Your task to perform on an android device: turn notification dots off Image 0: 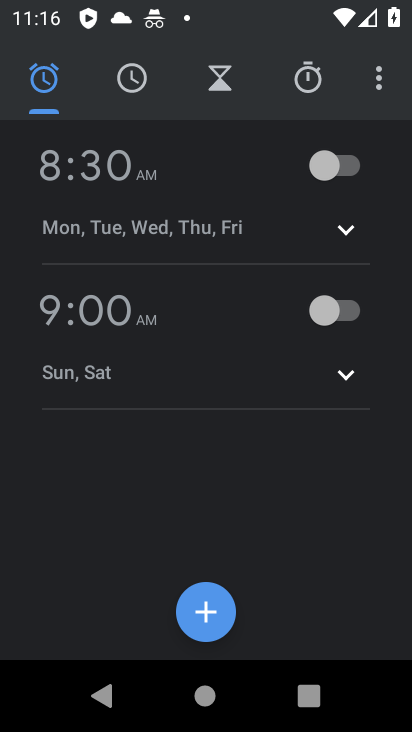
Step 0: press home button
Your task to perform on an android device: turn notification dots off Image 1: 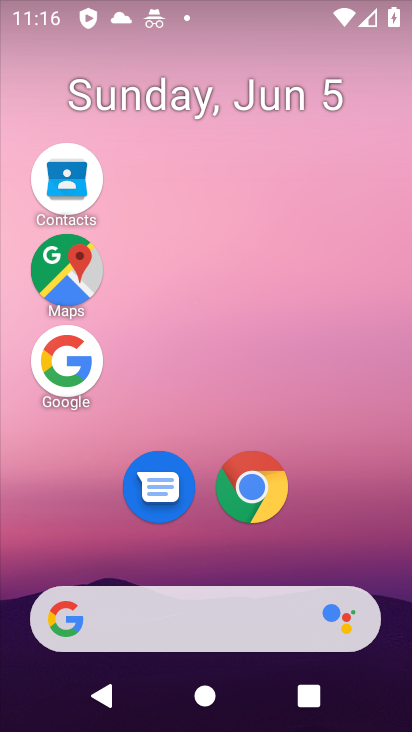
Step 1: drag from (224, 613) to (225, 149)
Your task to perform on an android device: turn notification dots off Image 2: 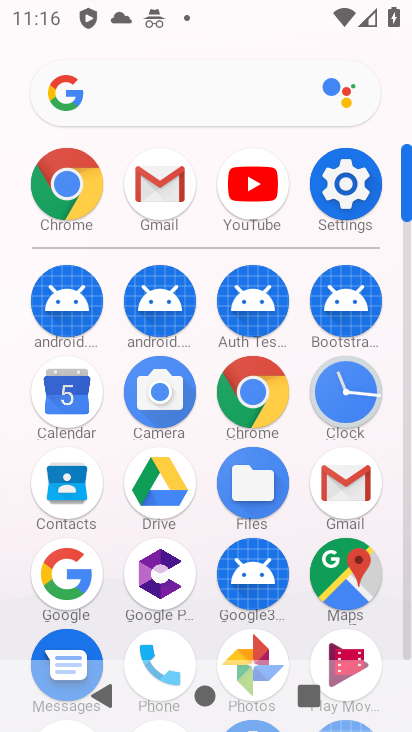
Step 2: click (346, 200)
Your task to perform on an android device: turn notification dots off Image 3: 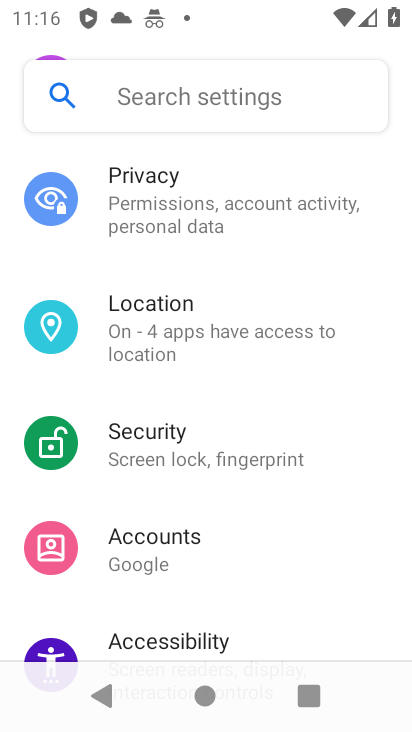
Step 3: drag from (188, 307) to (147, 716)
Your task to perform on an android device: turn notification dots off Image 4: 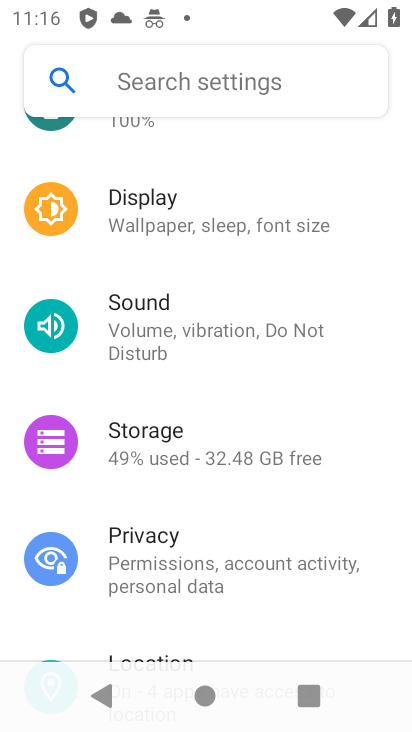
Step 4: drag from (184, 289) to (185, 699)
Your task to perform on an android device: turn notification dots off Image 5: 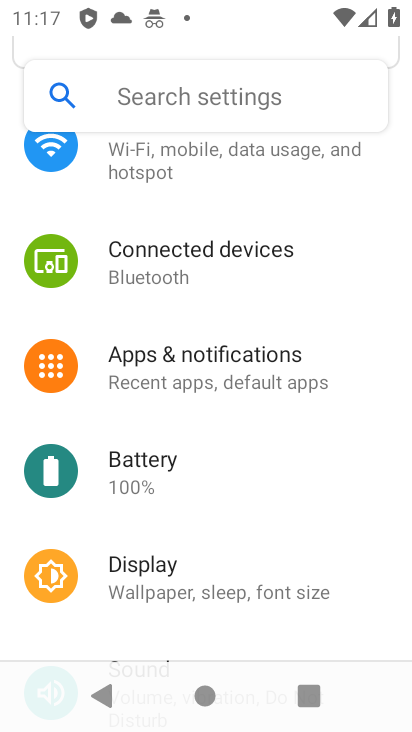
Step 5: click (193, 363)
Your task to perform on an android device: turn notification dots off Image 6: 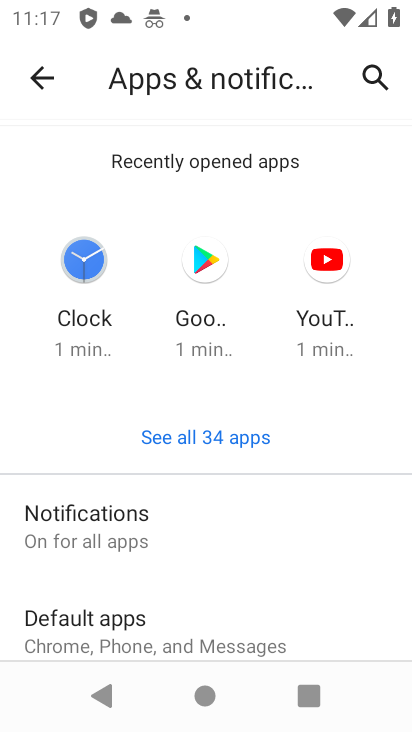
Step 6: drag from (189, 566) to (206, 272)
Your task to perform on an android device: turn notification dots off Image 7: 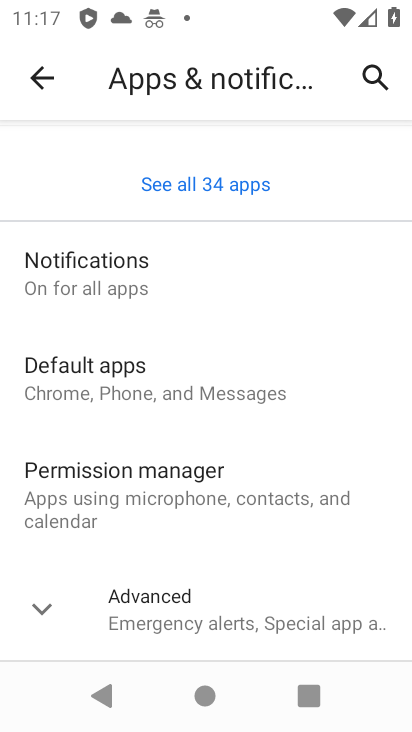
Step 7: click (124, 265)
Your task to perform on an android device: turn notification dots off Image 8: 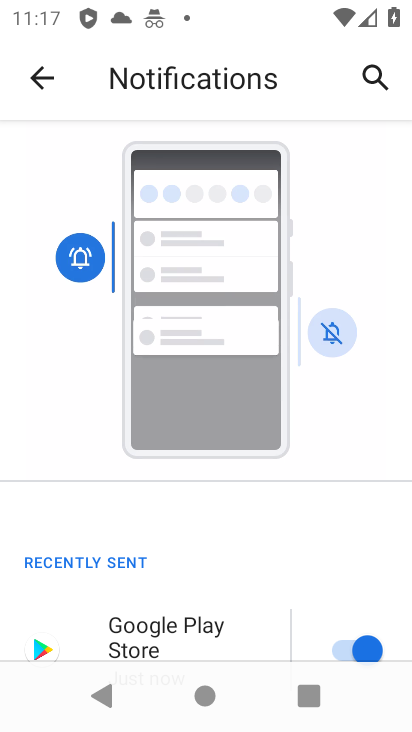
Step 8: drag from (202, 571) to (238, 115)
Your task to perform on an android device: turn notification dots off Image 9: 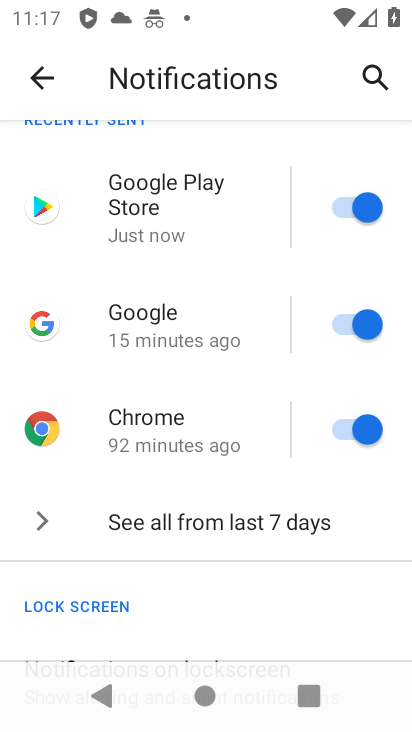
Step 9: drag from (206, 534) to (206, 320)
Your task to perform on an android device: turn notification dots off Image 10: 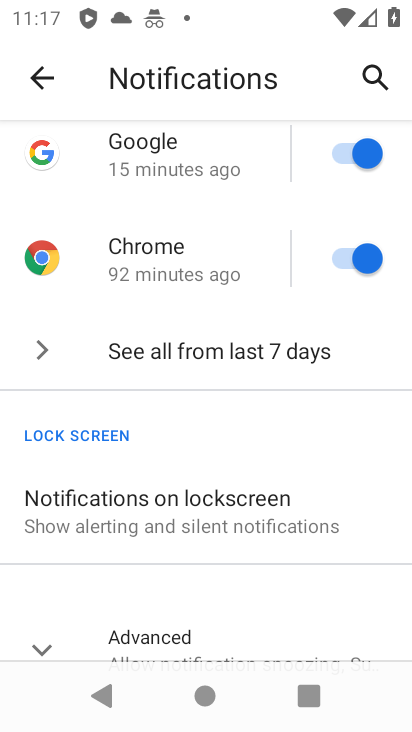
Step 10: drag from (234, 547) to (227, 245)
Your task to perform on an android device: turn notification dots off Image 11: 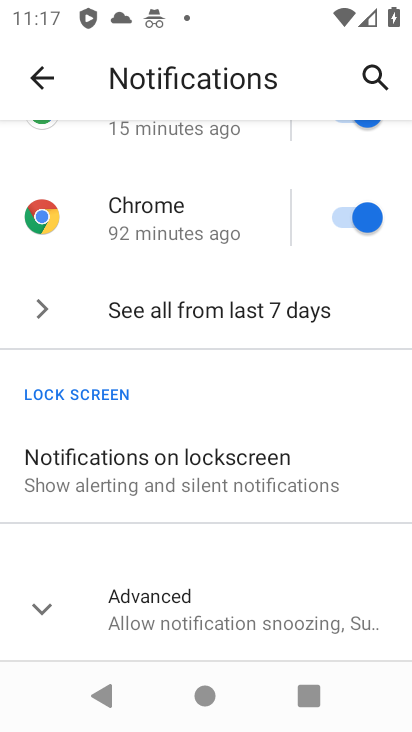
Step 11: click (206, 611)
Your task to perform on an android device: turn notification dots off Image 12: 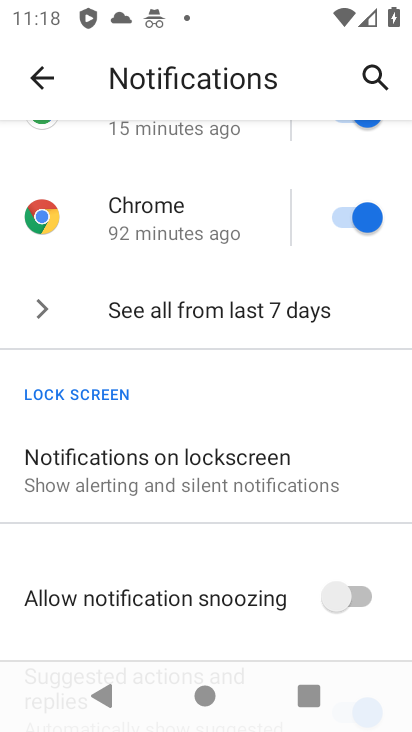
Step 12: drag from (195, 559) to (238, 297)
Your task to perform on an android device: turn notification dots off Image 13: 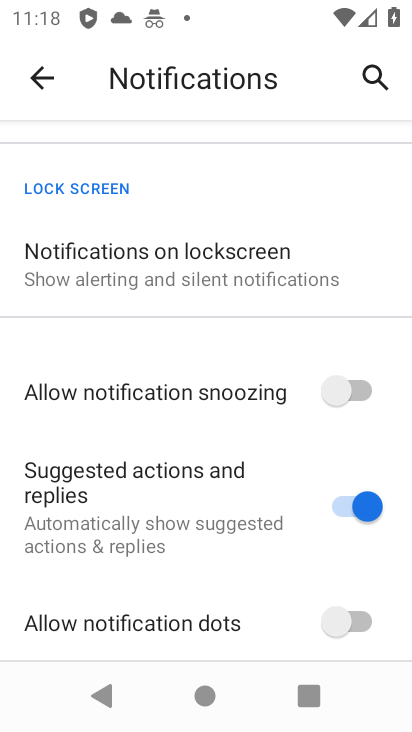
Step 13: click (256, 625)
Your task to perform on an android device: turn notification dots off Image 14: 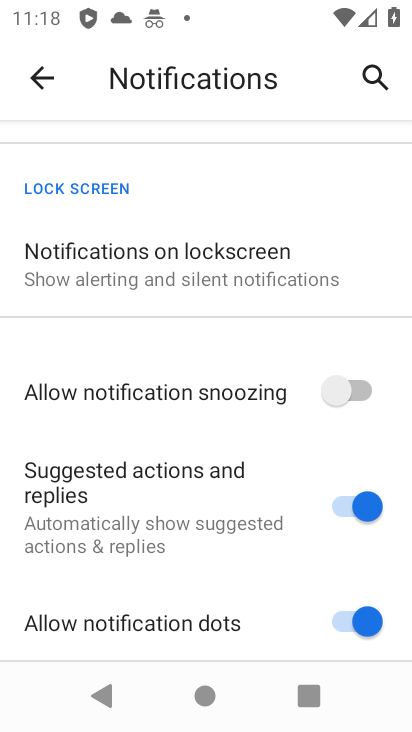
Step 14: click (358, 624)
Your task to perform on an android device: turn notification dots off Image 15: 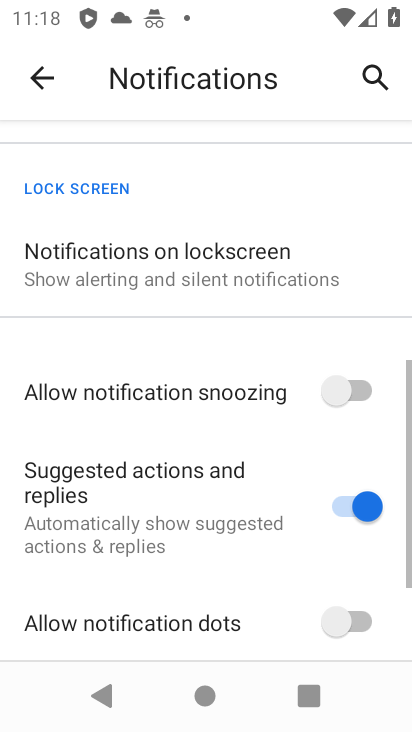
Step 15: task complete